Your task to perform on an android device: Open eBay Image 0: 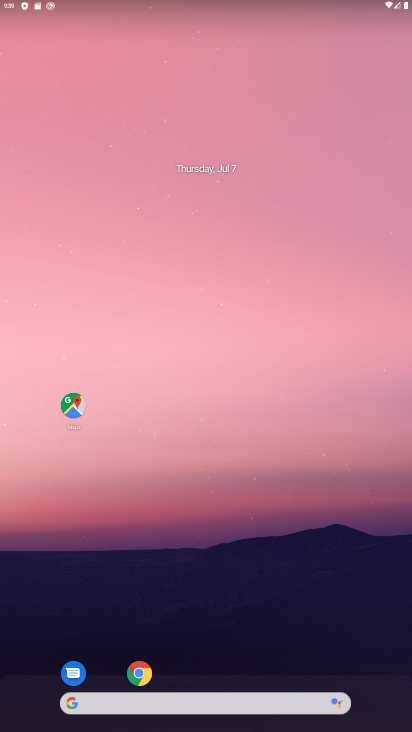
Step 0: press home button
Your task to perform on an android device: Open eBay Image 1: 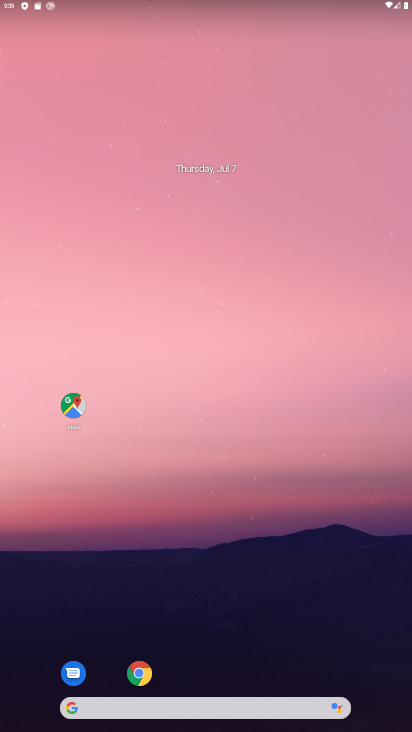
Step 1: drag from (195, 655) to (280, 165)
Your task to perform on an android device: Open eBay Image 2: 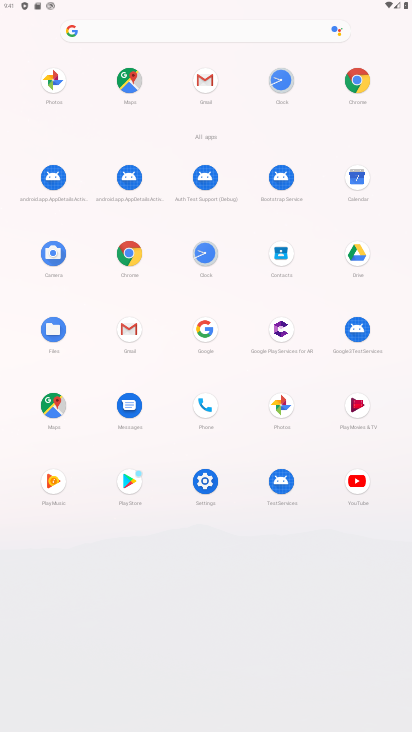
Step 2: click (129, 275)
Your task to perform on an android device: Open eBay Image 3: 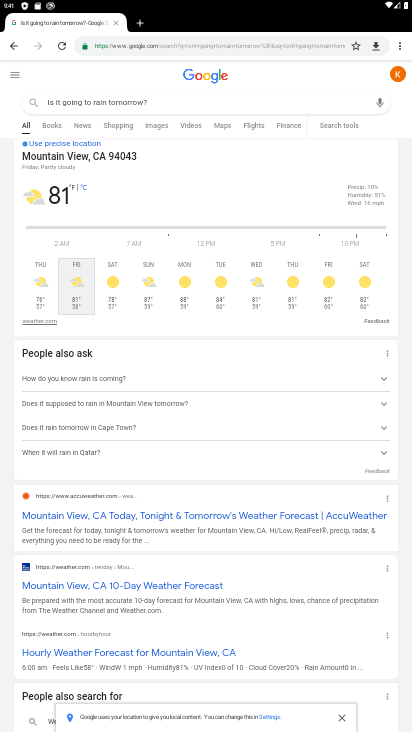
Step 3: click (180, 54)
Your task to perform on an android device: Open eBay Image 4: 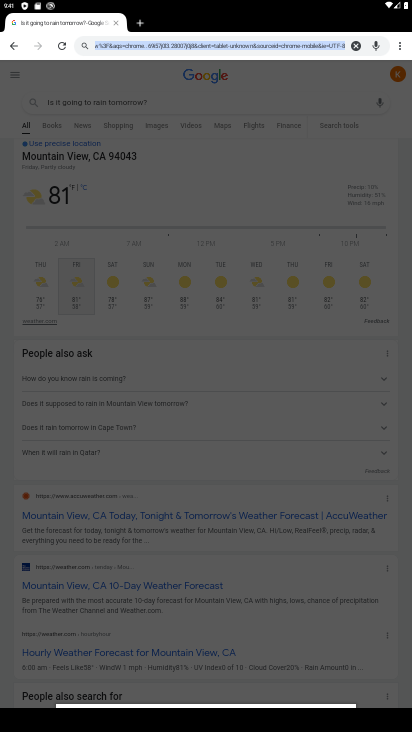
Step 4: type "eBa"
Your task to perform on an android device: Open eBay Image 5: 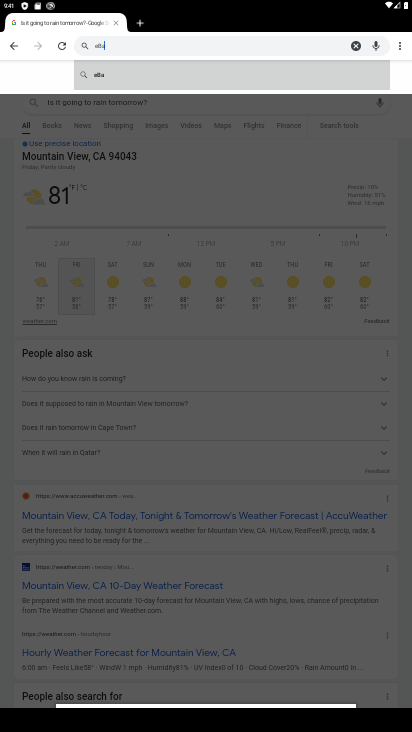
Step 5: type ""
Your task to perform on an android device: Open eBay Image 6: 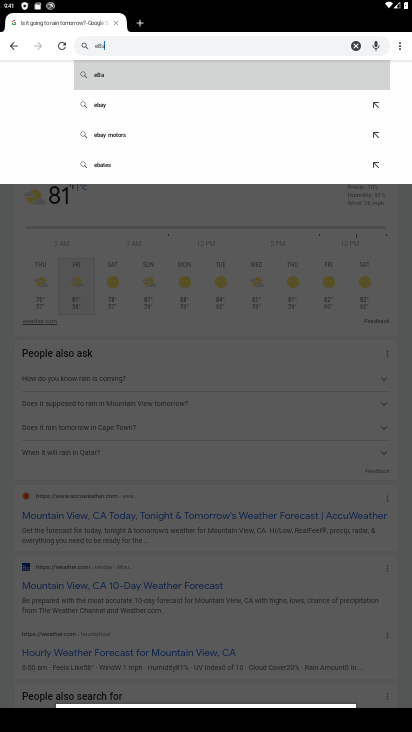
Step 6: click (122, 105)
Your task to perform on an android device: Open eBay Image 7: 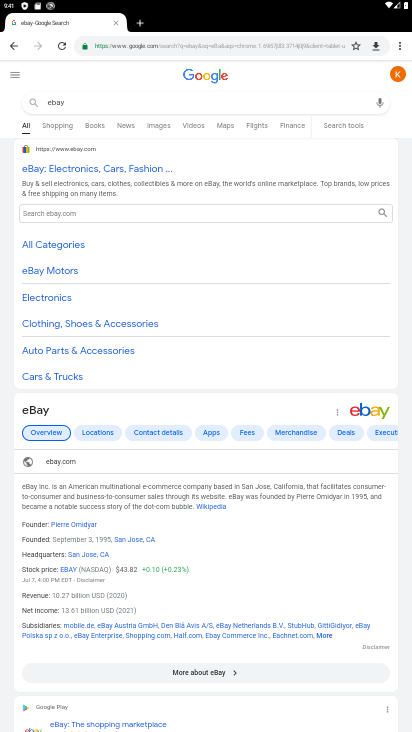
Step 7: click (130, 160)
Your task to perform on an android device: Open eBay Image 8: 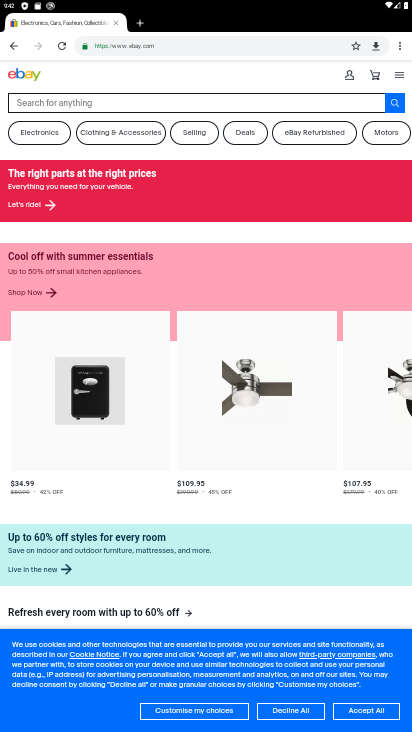
Step 8: task complete